Your task to perform on an android device: open app "Google Maps" Image 0: 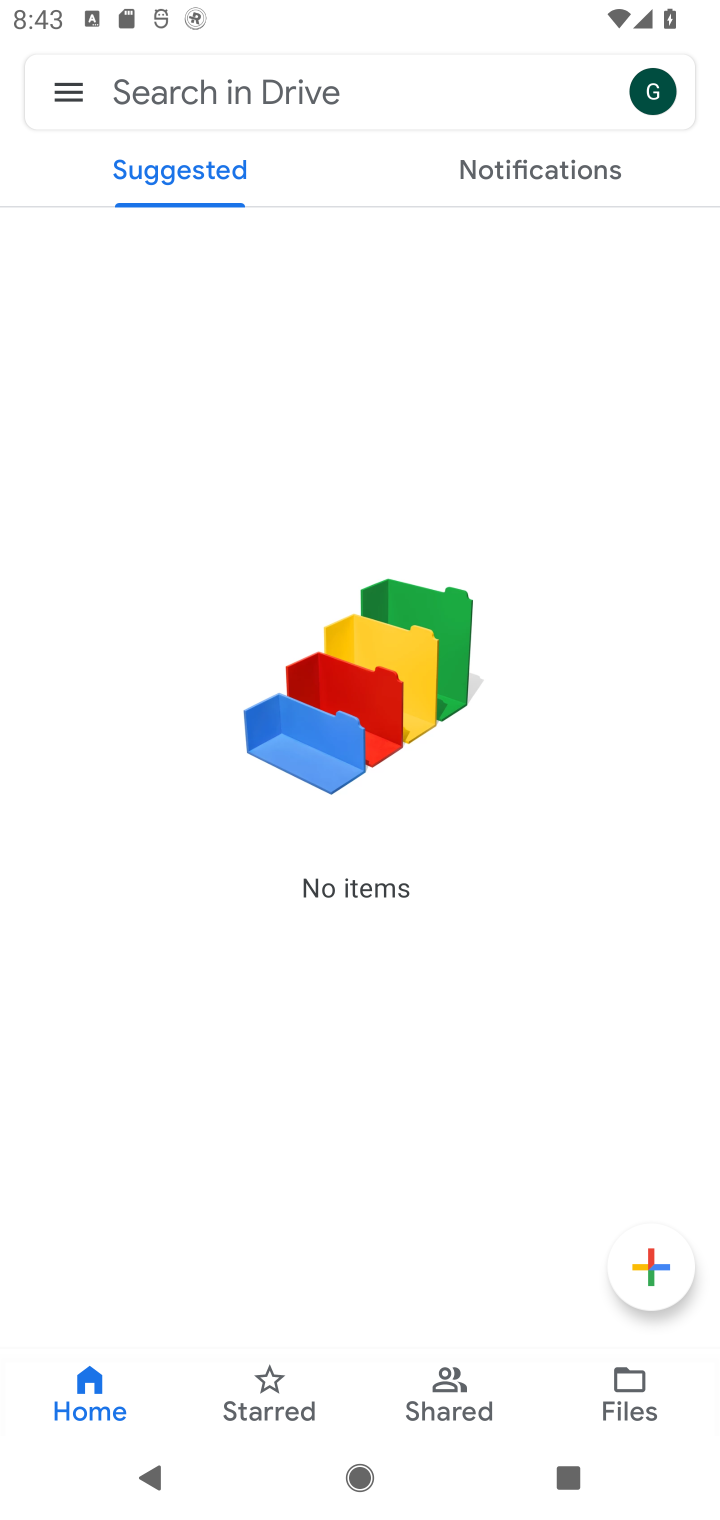
Step 0: press home button
Your task to perform on an android device: open app "Google Maps" Image 1: 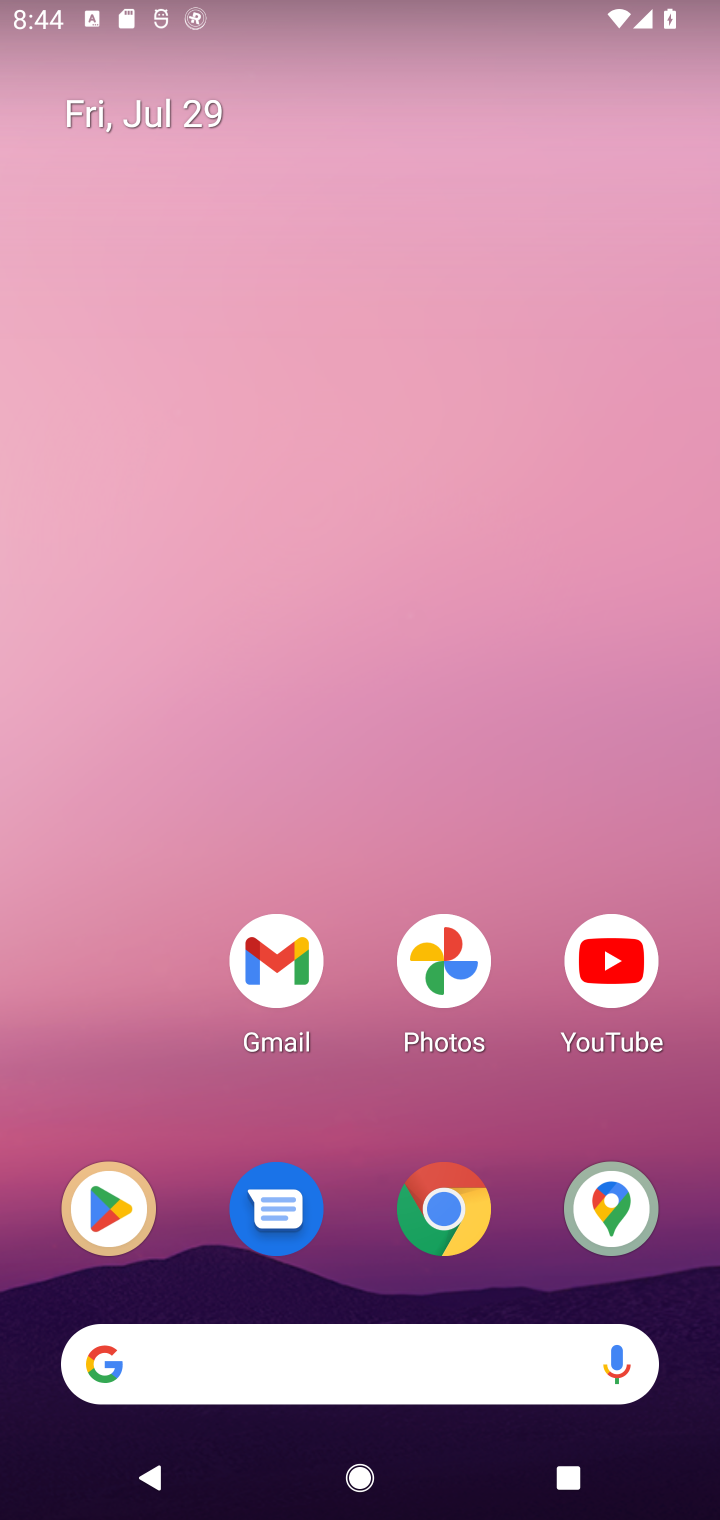
Step 1: click (619, 1210)
Your task to perform on an android device: open app "Google Maps" Image 2: 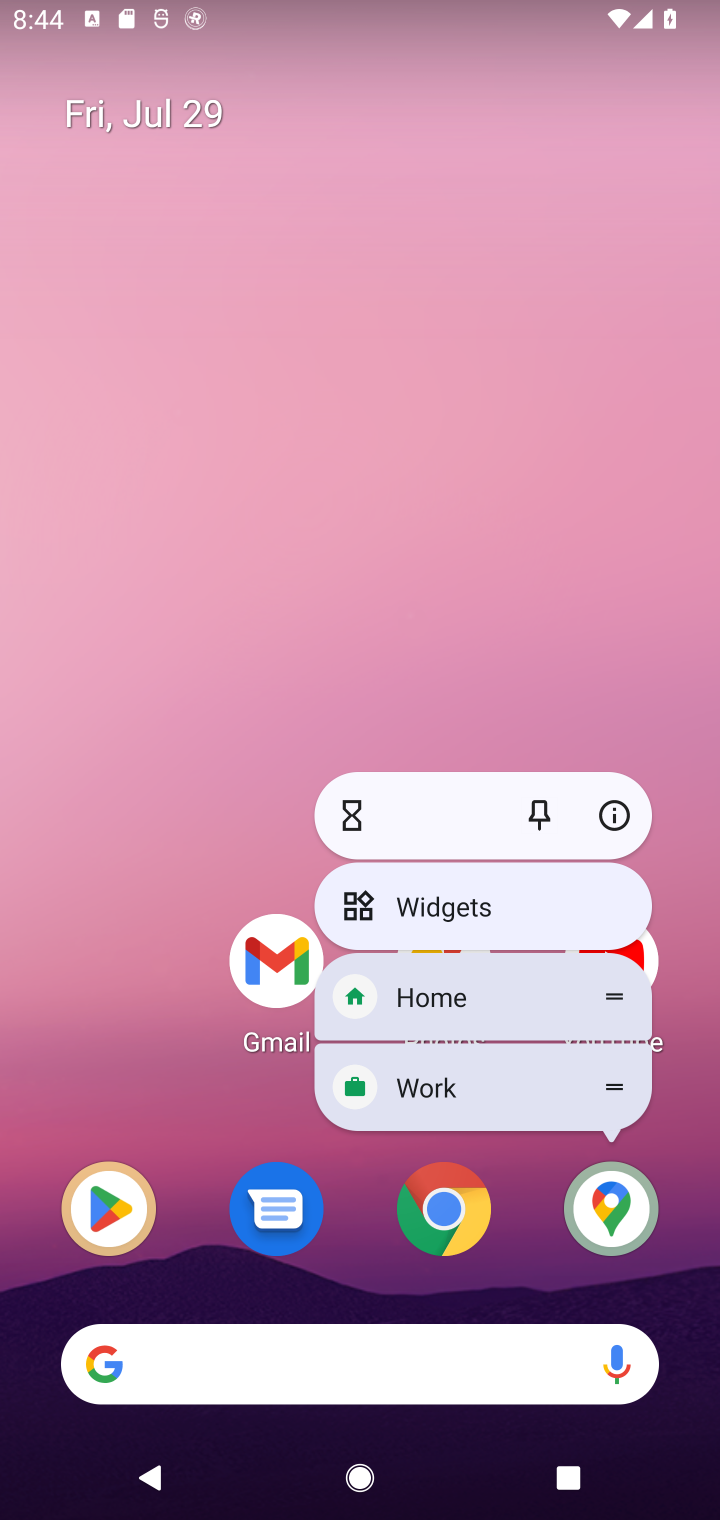
Step 2: click (619, 1210)
Your task to perform on an android device: open app "Google Maps" Image 3: 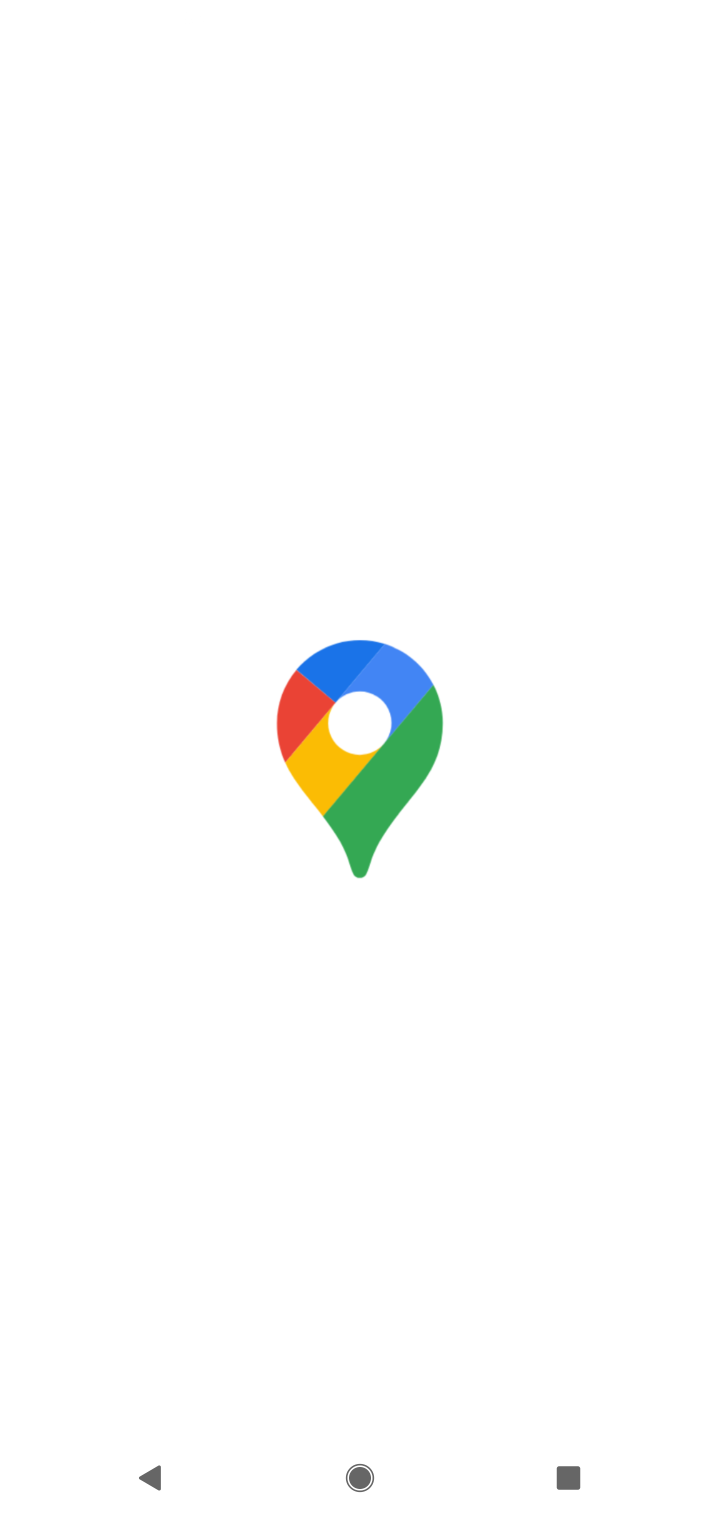
Step 3: press home button
Your task to perform on an android device: open app "Google Maps" Image 4: 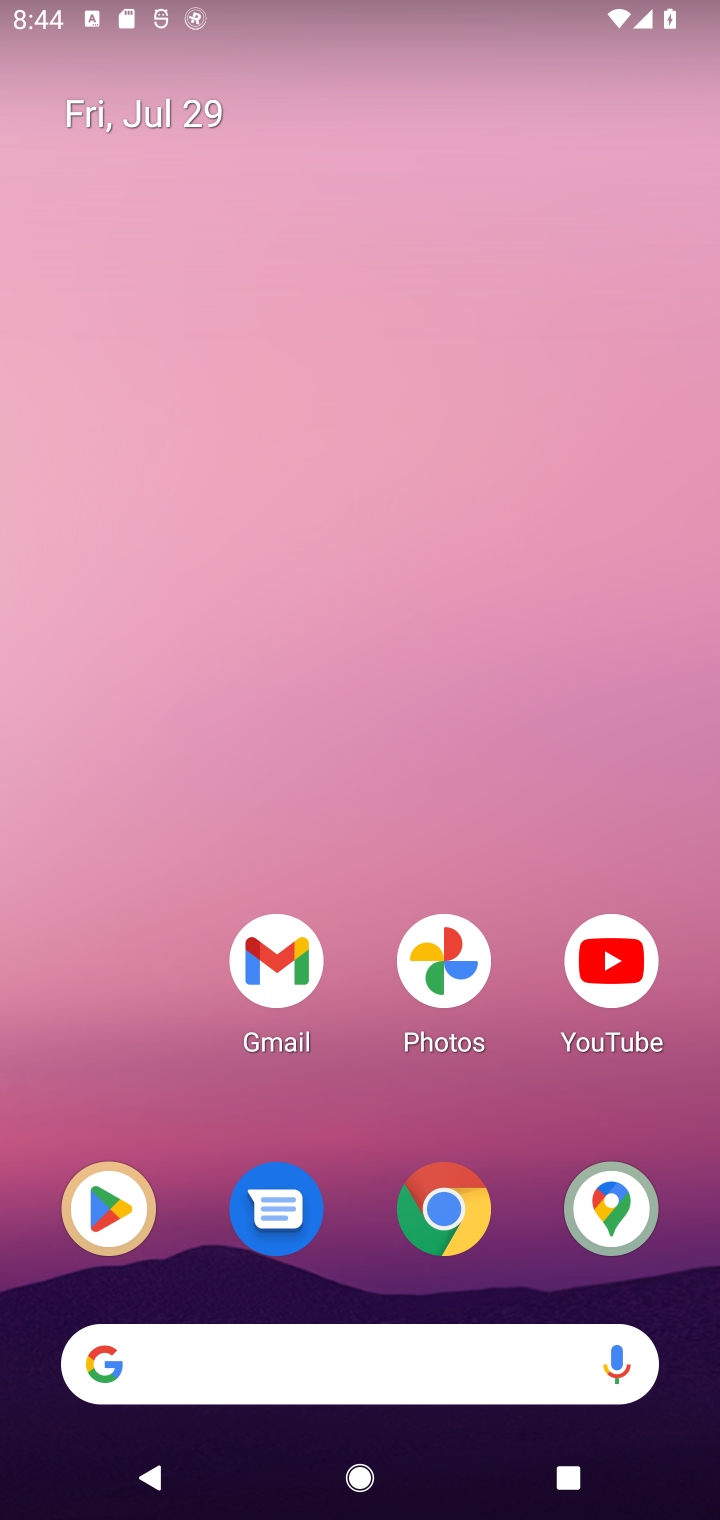
Step 4: click (597, 1224)
Your task to perform on an android device: open app "Google Maps" Image 5: 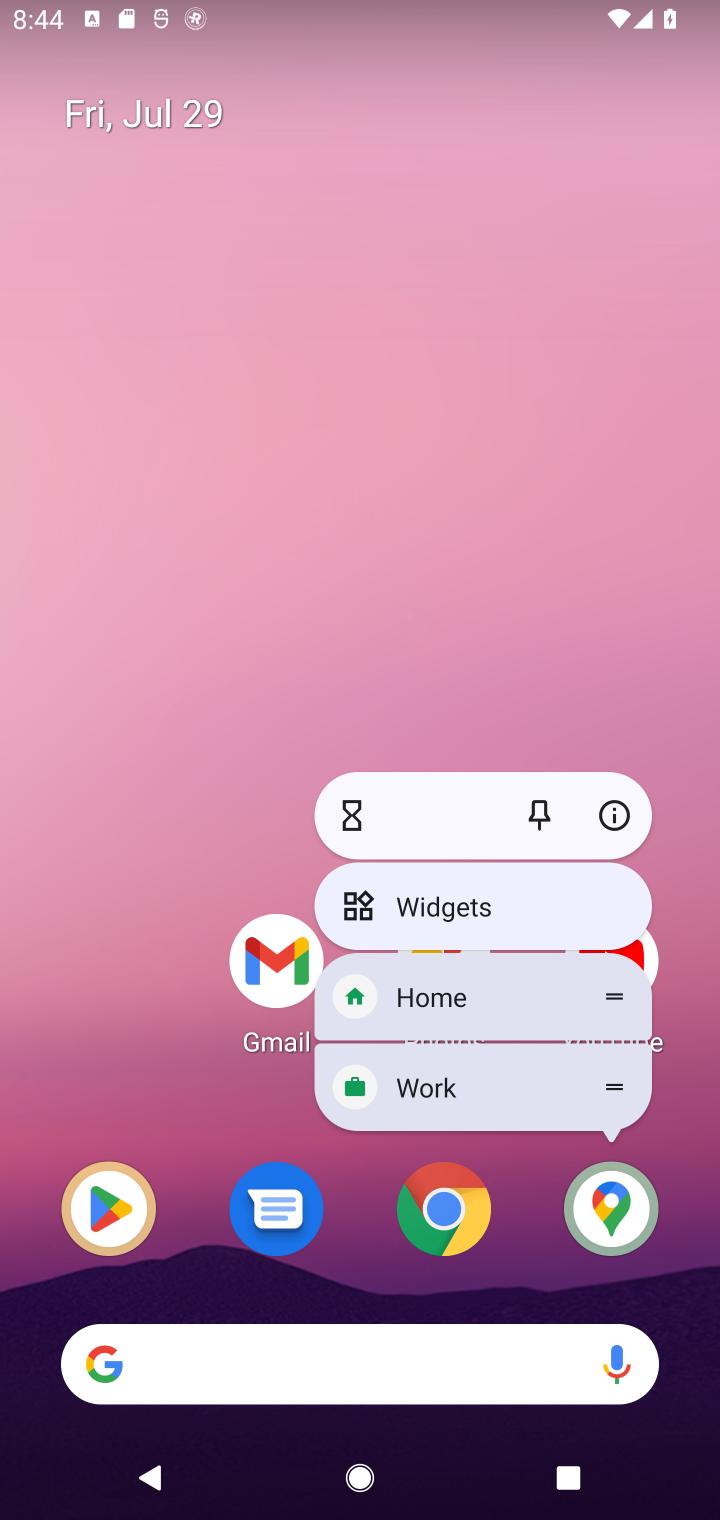
Step 5: click (608, 1224)
Your task to perform on an android device: open app "Google Maps" Image 6: 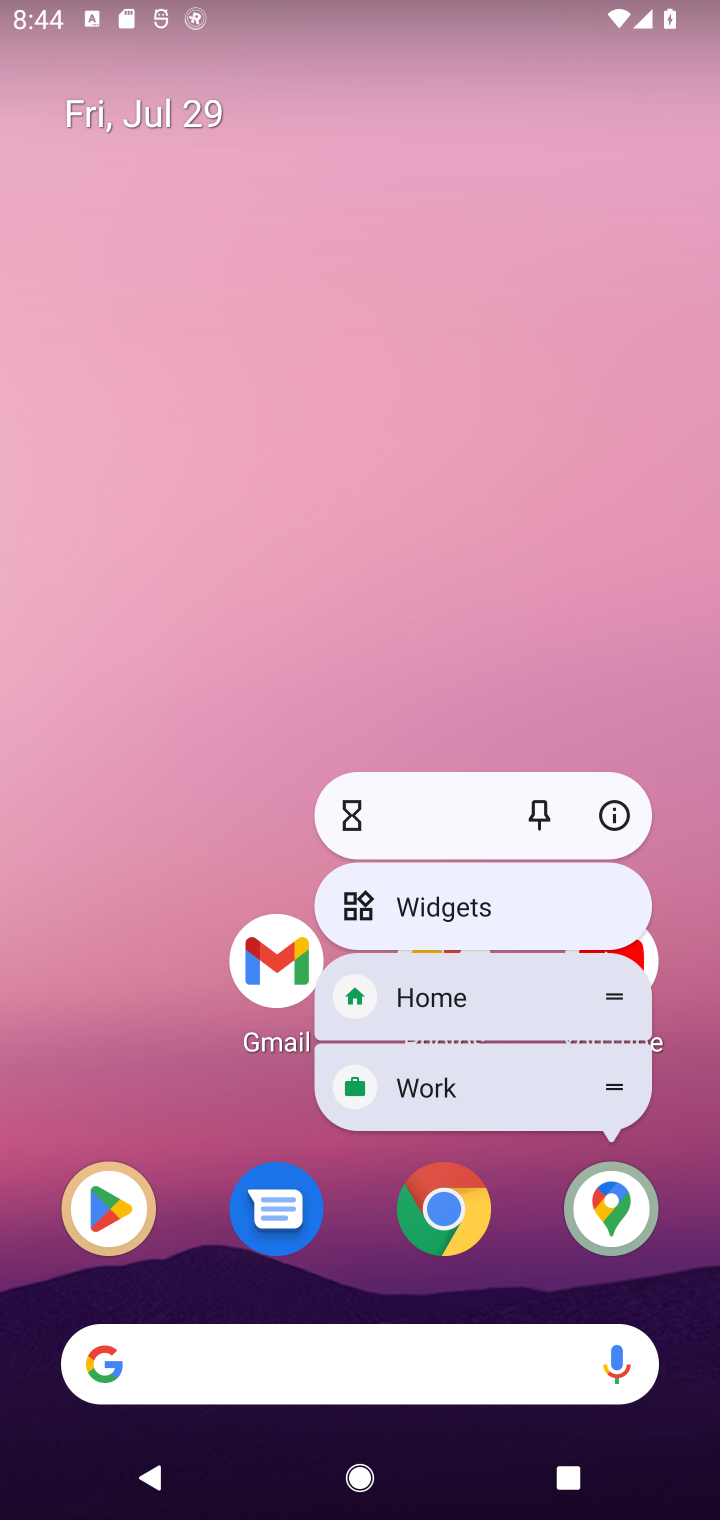
Step 6: click (608, 1224)
Your task to perform on an android device: open app "Google Maps" Image 7: 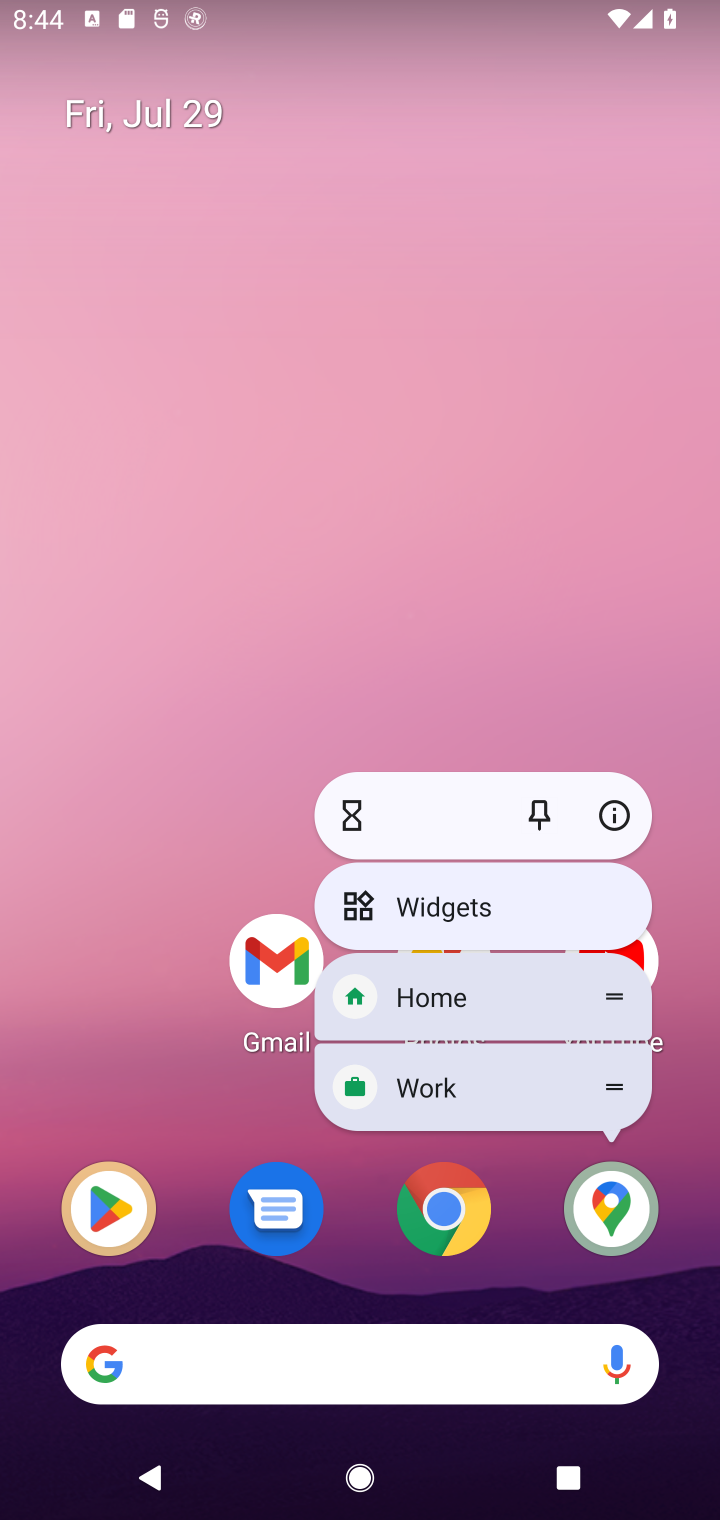
Step 7: click (684, 818)
Your task to perform on an android device: open app "Google Maps" Image 8: 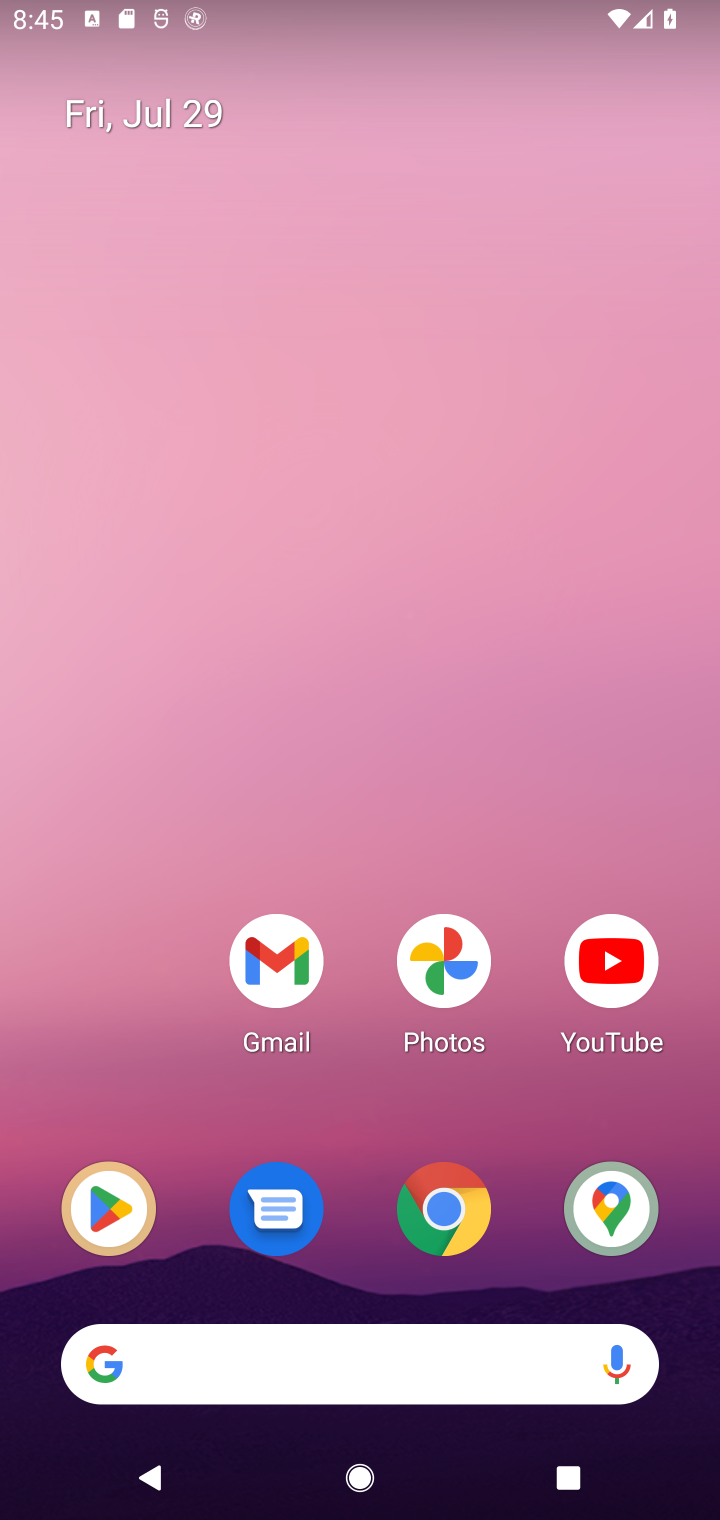
Step 8: click (618, 1212)
Your task to perform on an android device: open app "Google Maps" Image 9: 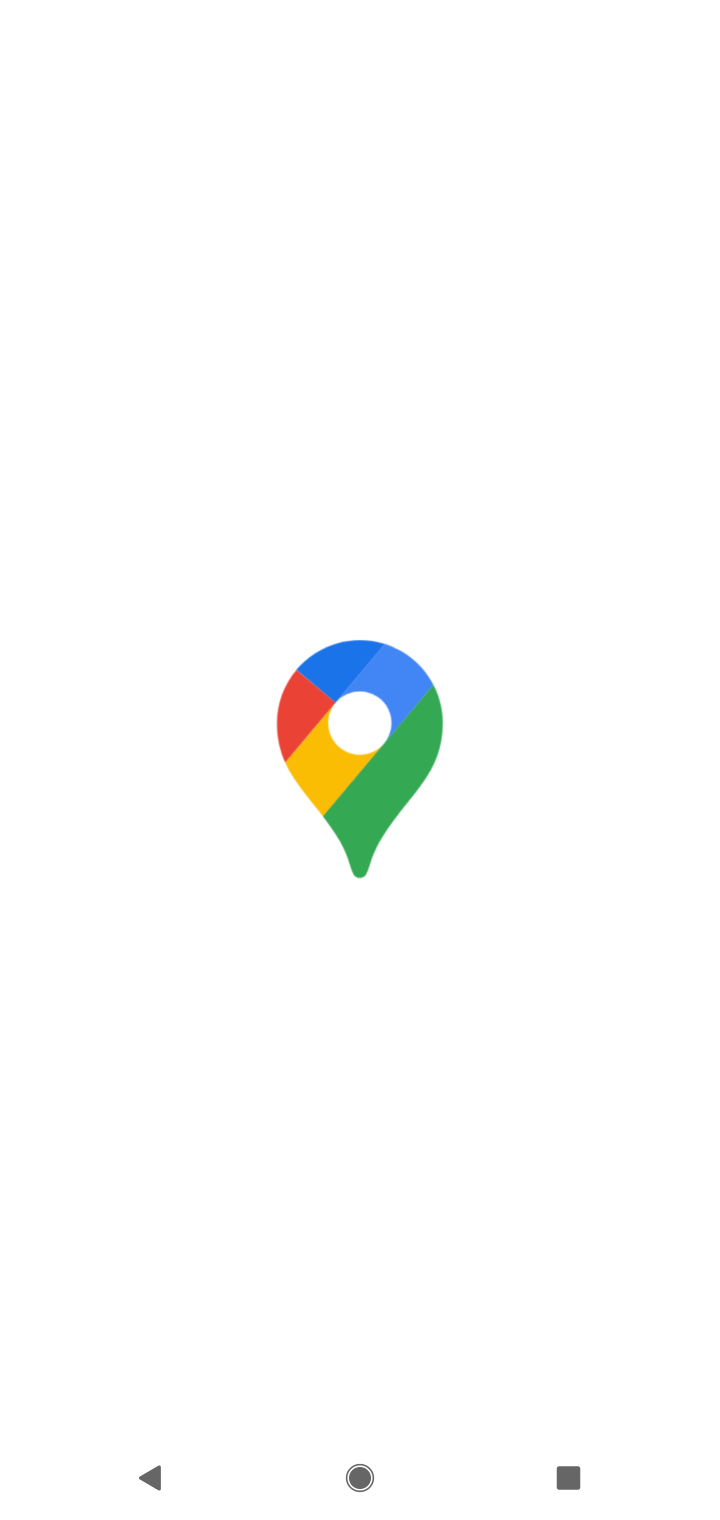
Step 9: task complete